Your task to perform on an android device: turn off notifications in google photos Image 0: 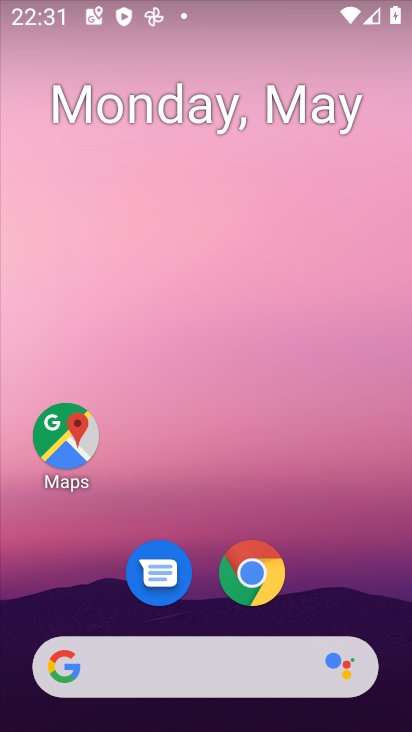
Step 0: drag from (377, 587) to (196, 14)
Your task to perform on an android device: turn off notifications in google photos Image 1: 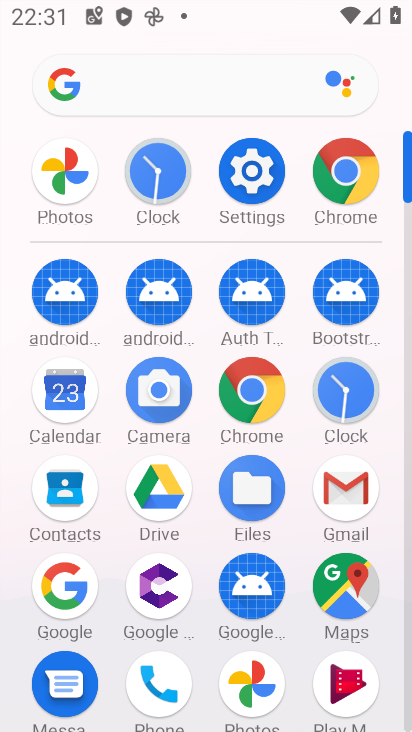
Step 1: click (88, 204)
Your task to perform on an android device: turn off notifications in google photos Image 2: 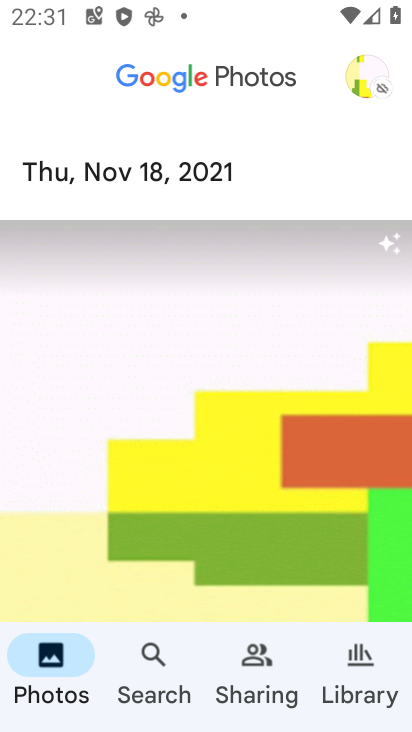
Step 2: task complete